Your task to perform on an android device: Open privacy settings Image 0: 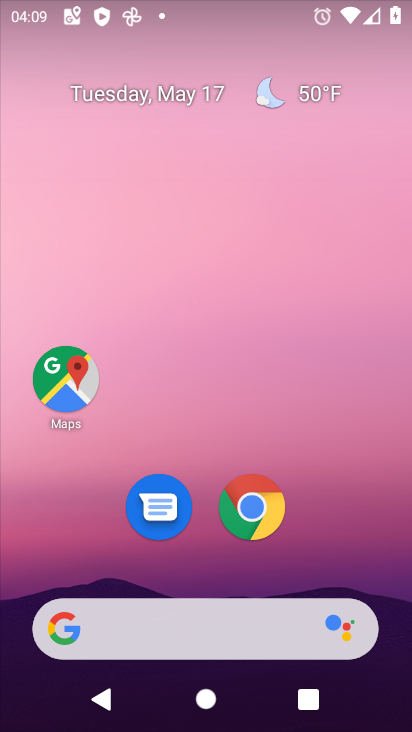
Step 0: drag from (333, 556) to (250, 37)
Your task to perform on an android device: Open privacy settings Image 1: 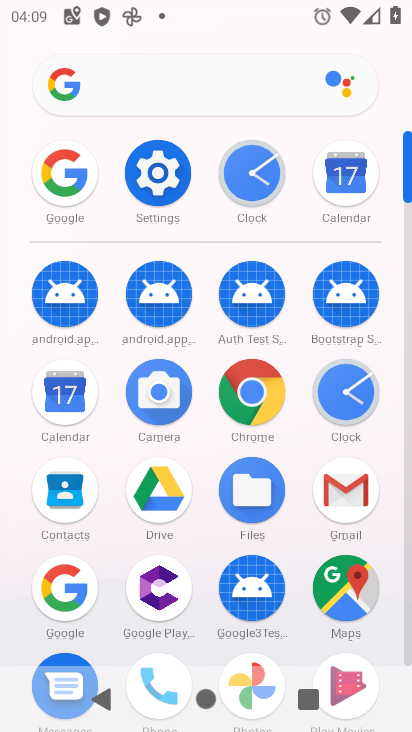
Step 1: click (165, 174)
Your task to perform on an android device: Open privacy settings Image 2: 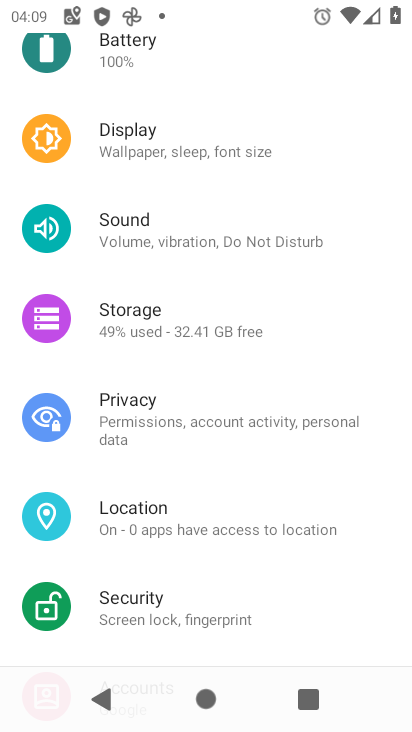
Step 2: click (176, 422)
Your task to perform on an android device: Open privacy settings Image 3: 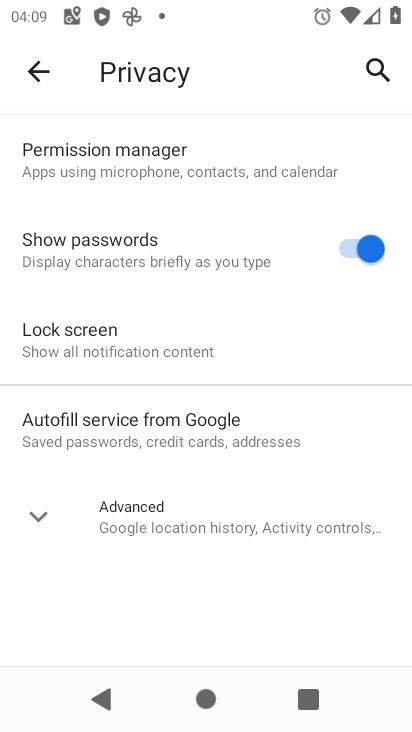
Step 3: task complete